Your task to perform on an android device: delete browsing data in the chrome app Image 0: 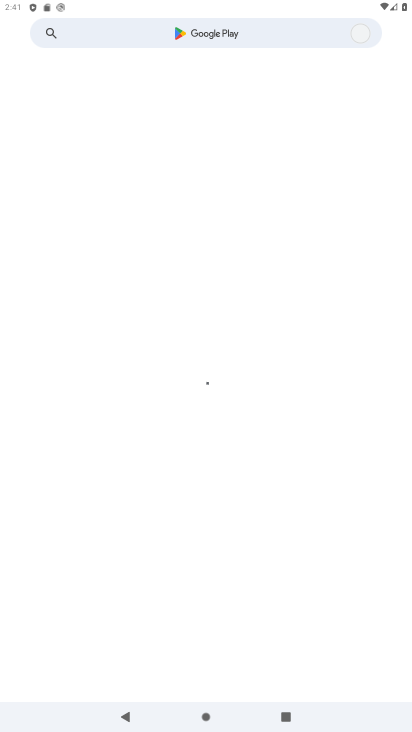
Step 0: press home button
Your task to perform on an android device: delete browsing data in the chrome app Image 1: 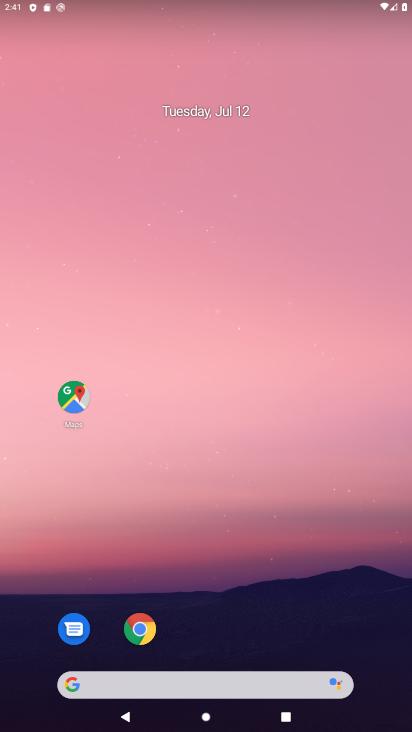
Step 1: click (141, 627)
Your task to perform on an android device: delete browsing data in the chrome app Image 2: 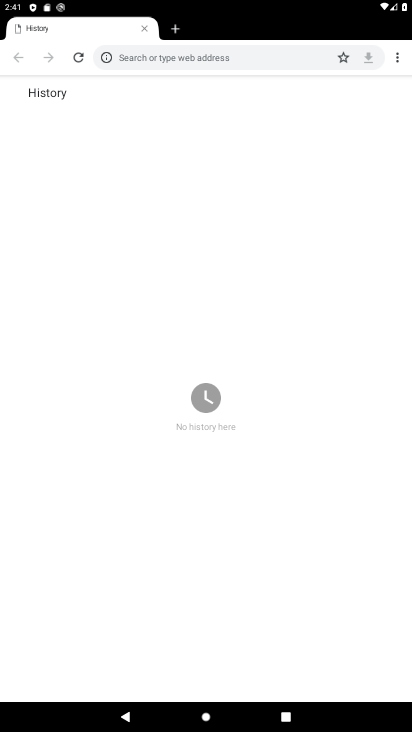
Step 2: click (394, 61)
Your task to perform on an android device: delete browsing data in the chrome app Image 3: 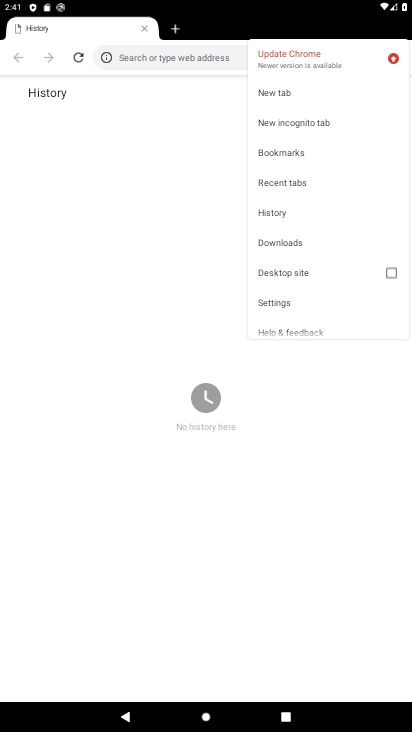
Step 3: click (295, 303)
Your task to perform on an android device: delete browsing data in the chrome app Image 4: 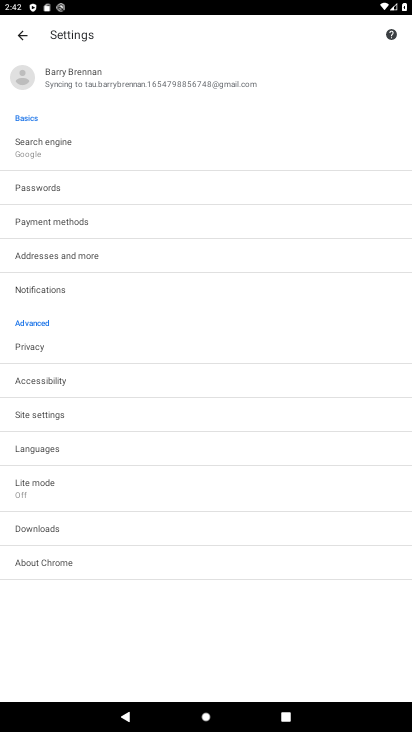
Step 4: click (29, 346)
Your task to perform on an android device: delete browsing data in the chrome app Image 5: 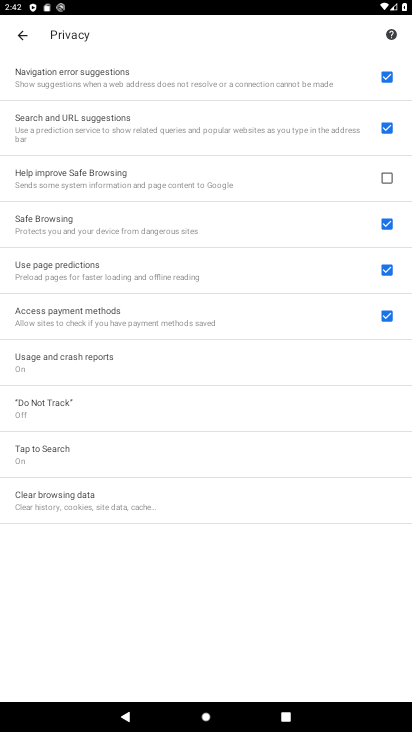
Step 5: click (128, 499)
Your task to perform on an android device: delete browsing data in the chrome app Image 6: 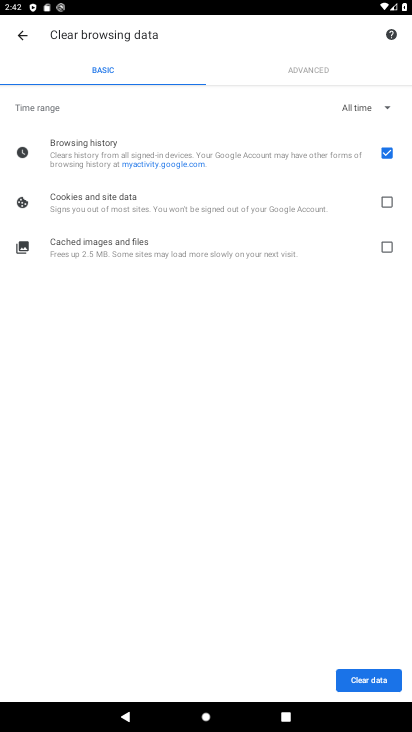
Step 6: click (359, 683)
Your task to perform on an android device: delete browsing data in the chrome app Image 7: 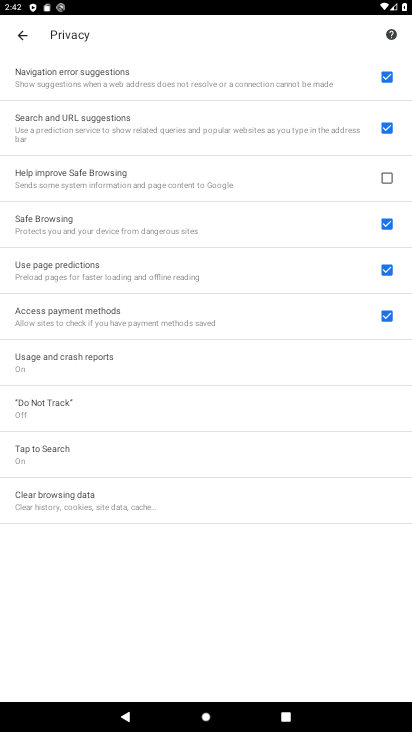
Step 7: click (183, 498)
Your task to perform on an android device: delete browsing data in the chrome app Image 8: 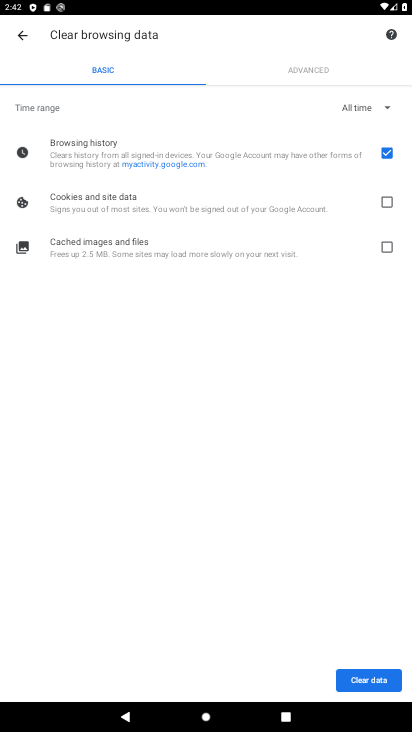
Step 8: click (390, 196)
Your task to perform on an android device: delete browsing data in the chrome app Image 9: 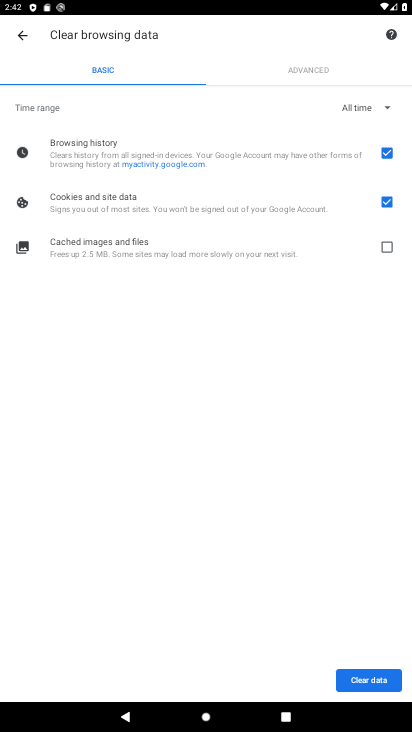
Step 9: click (386, 252)
Your task to perform on an android device: delete browsing data in the chrome app Image 10: 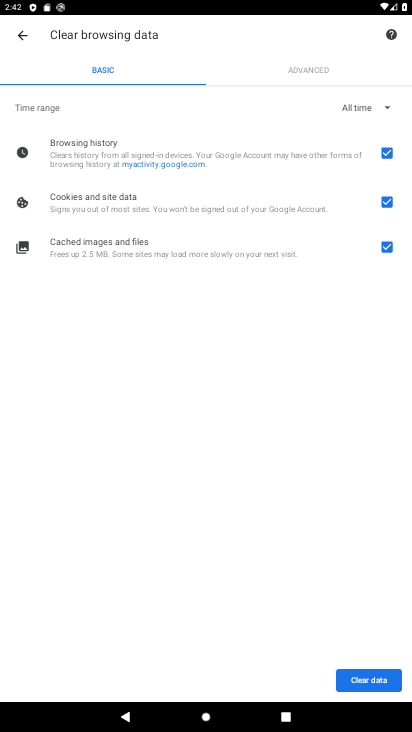
Step 10: click (377, 685)
Your task to perform on an android device: delete browsing data in the chrome app Image 11: 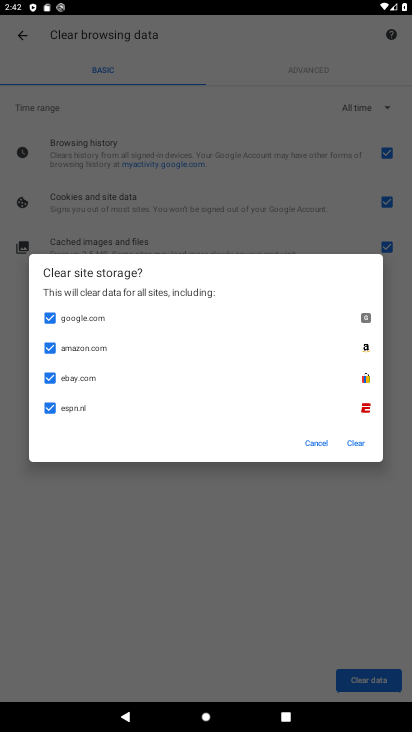
Step 11: click (353, 440)
Your task to perform on an android device: delete browsing data in the chrome app Image 12: 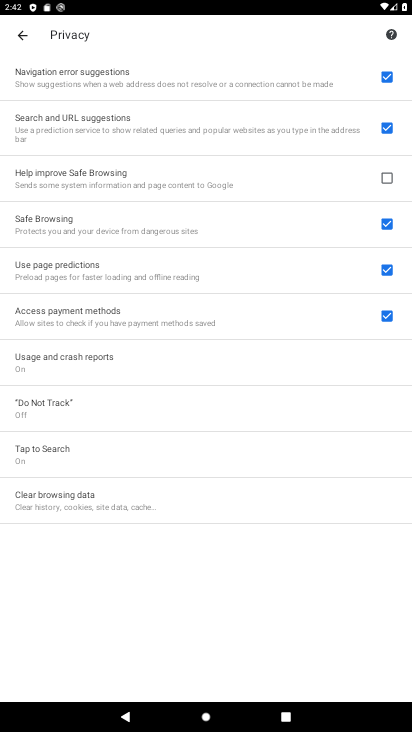
Step 12: task complete